Your task to perform on an android device: turn on wifi Image 0: 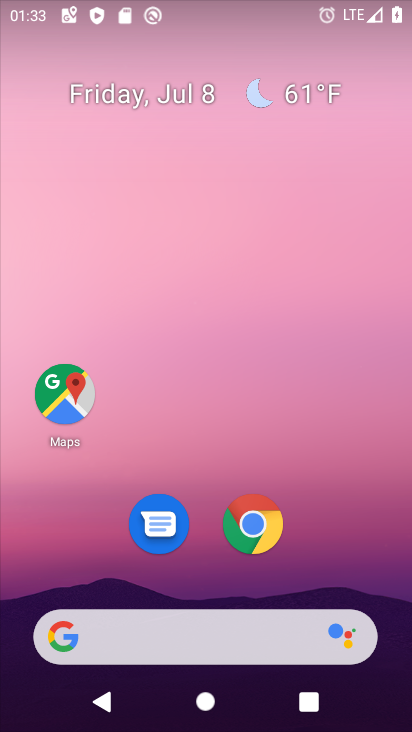
Step 0: drag from (226, 449) to (237, 29)
Your task to perform on an android device: turn on wifi Image 1: 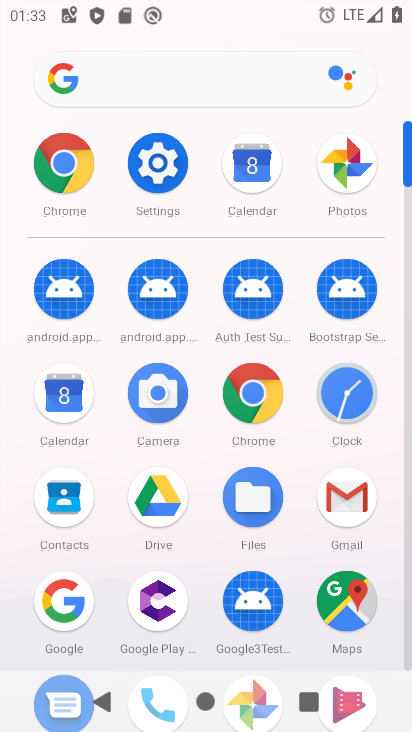
Step 1: click (169, 160)
Your task to perform on an android device: turn on wifi Image 2: 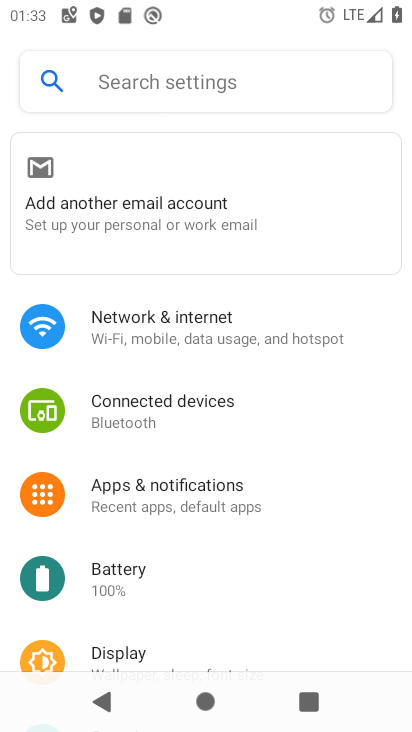
Step 2: click (193, 331)
Your task to perform on an android device: turn on wifi Image 3: 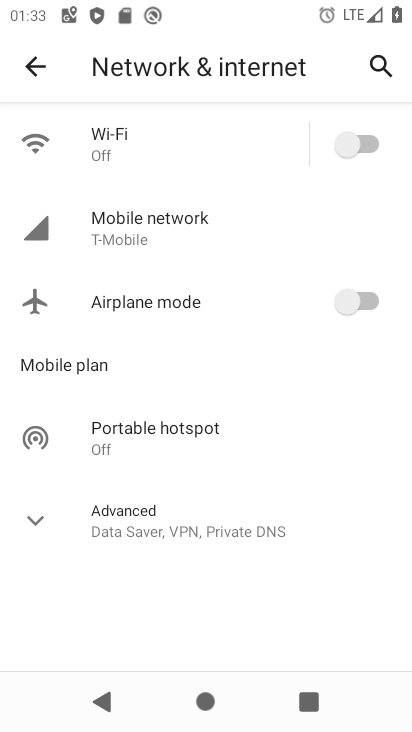
Step 3: click (363, 146)
Your task to perform on an android device: turn on wifi Image 4: 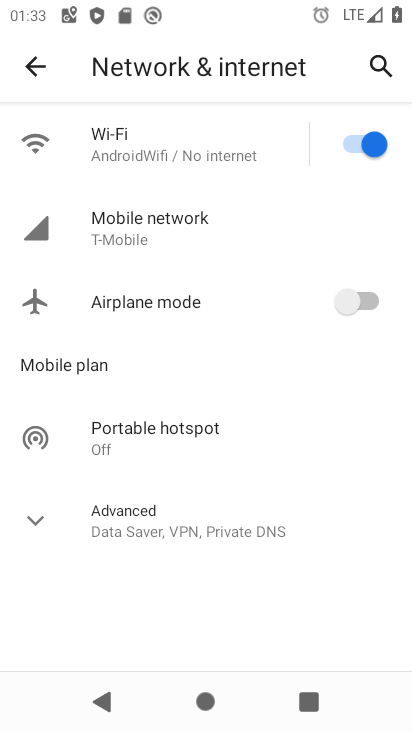
Step 4: task complete